Your task to perform on an android device: Search for "asus rog" on target, select the first entry, and add it to the cart. Image 0: 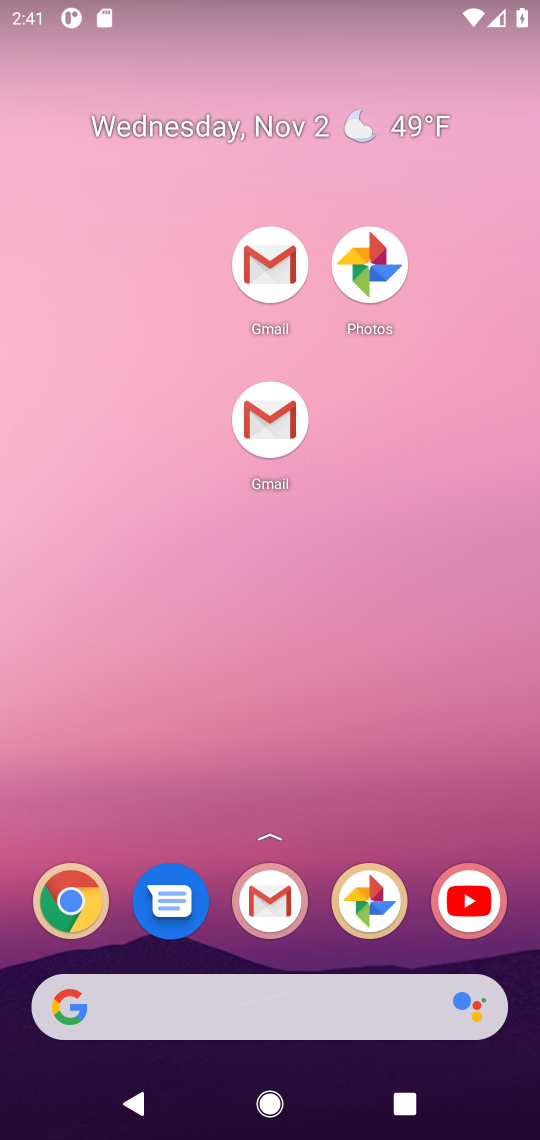
Step 0: drag from (237, 814) to (281, 3)
Your task to perform on an android device: Search for "asus rog" on target, select the first entry, and add it to the cart. Image 1: 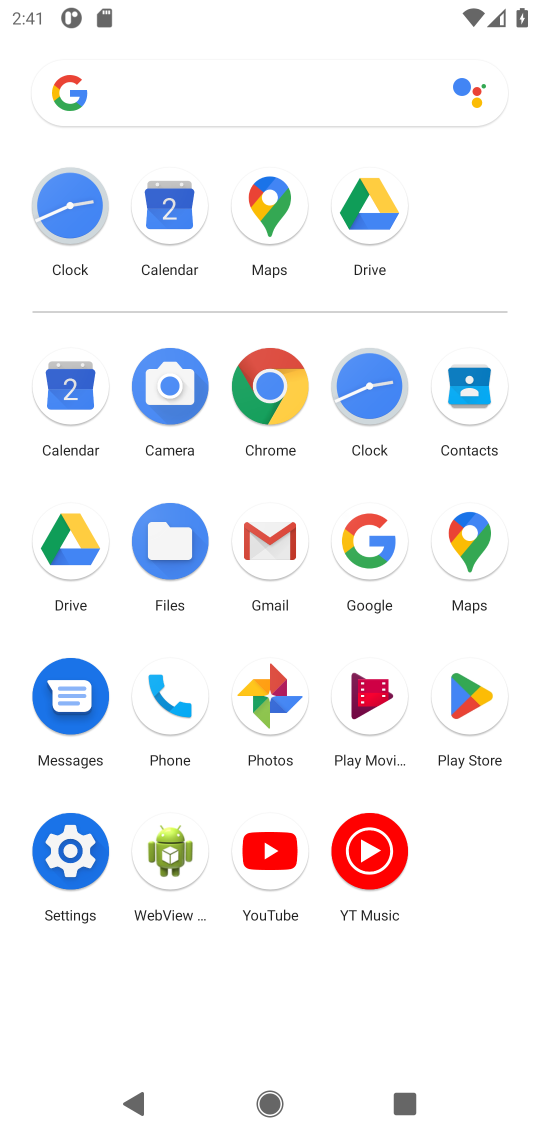
Step 1: click (276, 395)
Your task to perform on an android device: Search for "asus rog" on target, select the first entry, and add it to the cart. Image 2: 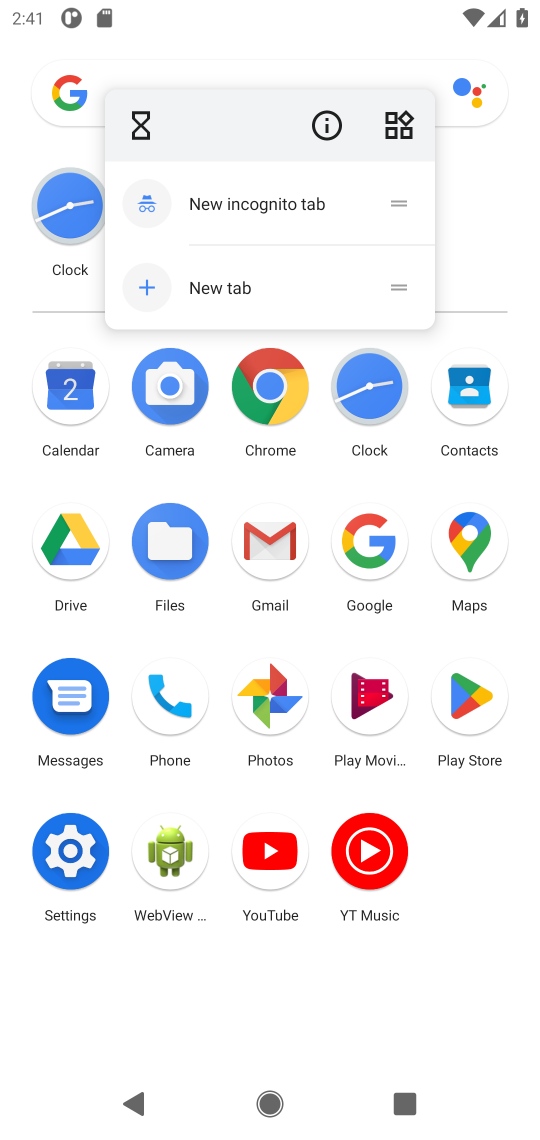
Step 2: click (272, 393)
Your task to perform on an android device: Search for "asus rog" on target, select the first entry, and add it to the cart. Image 3: 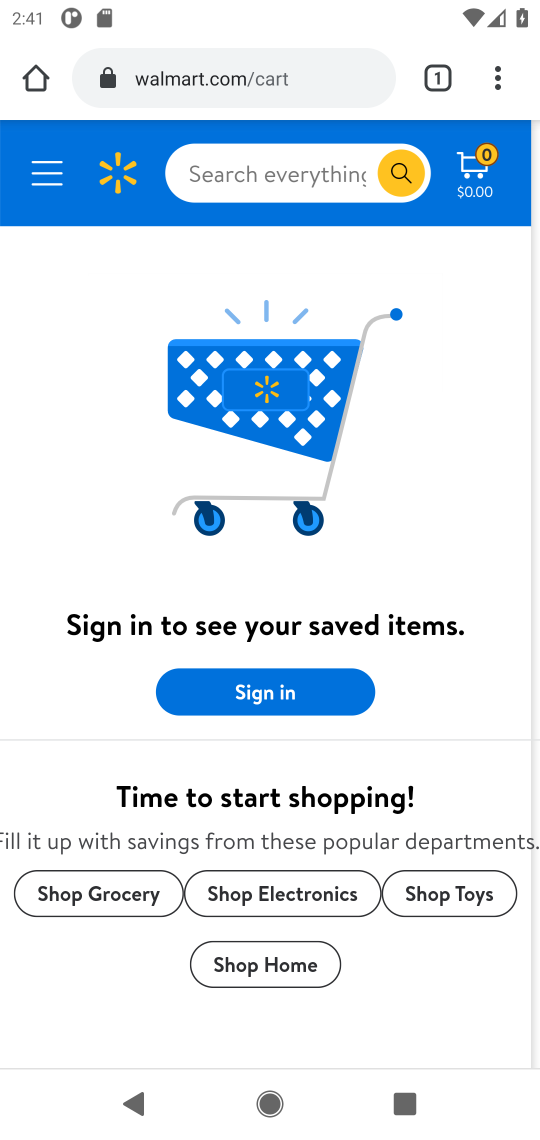
Step 3: click (246, 78)
Your task to perform on an android device: Search for "asus rog" on target, select the first entry, and add it to the cart. Image 4: 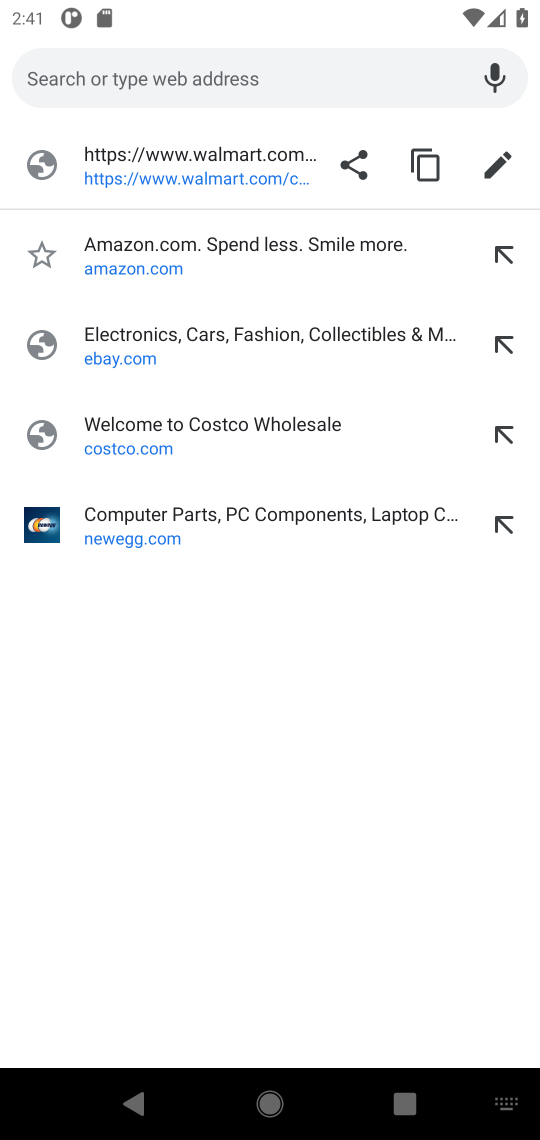
Step 4: type "target.com"
Your task to perform on an android device: Search for "asus rog" on target, select the first entry, and add it to the cart. Image 5: 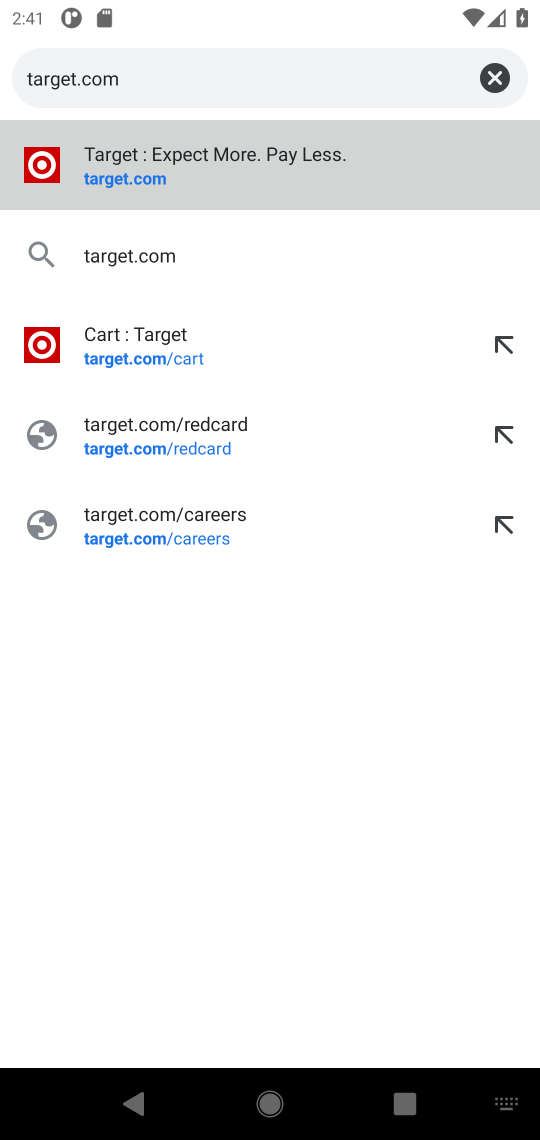
Step 5: press enter
Your task to perform on an android device: Search for "asus rog" on target, select the first entry, and add it to the cart. Image 6: 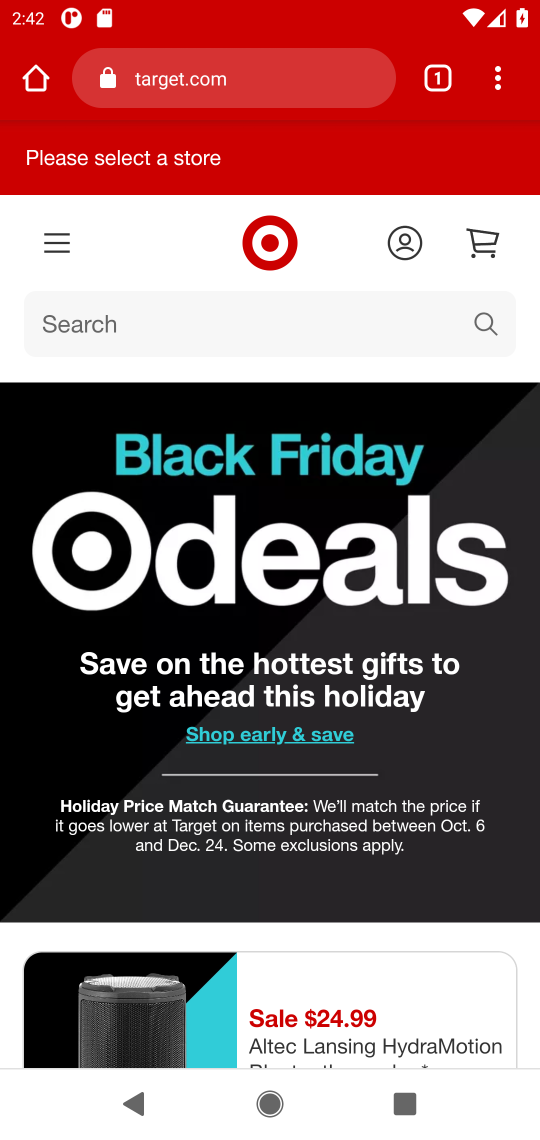
Step 6: click (271, 81)
Your task to perform on an android device: Search for "asus rog" on target, select the first entry, and add it to the cart. Image 7: 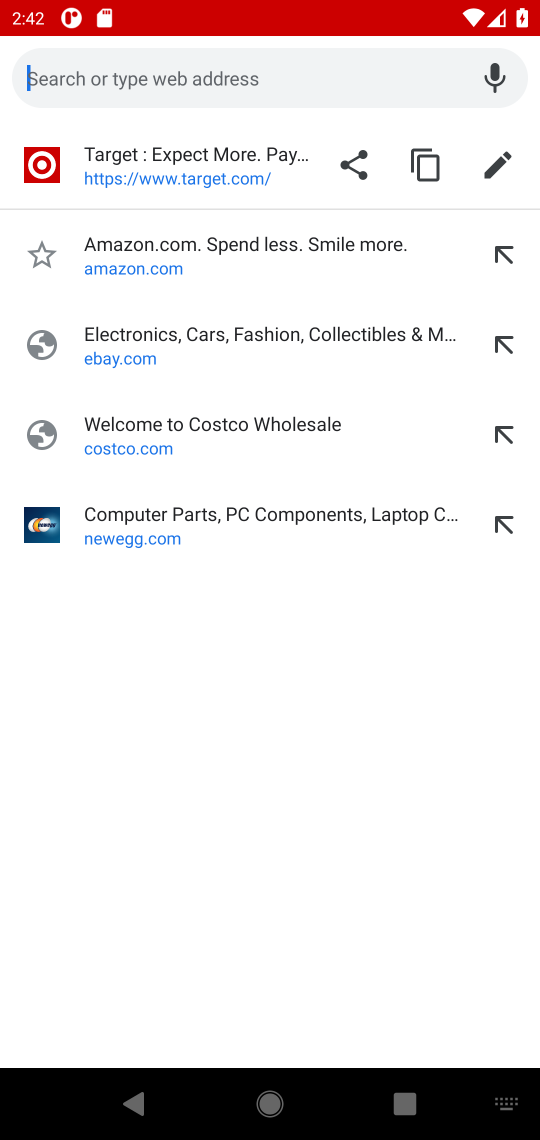
Step 7: click (249, 783)
Your task to perform on an android device: Search for "asus rog" on target, select the first entry, and add it to the cart. Image 8: 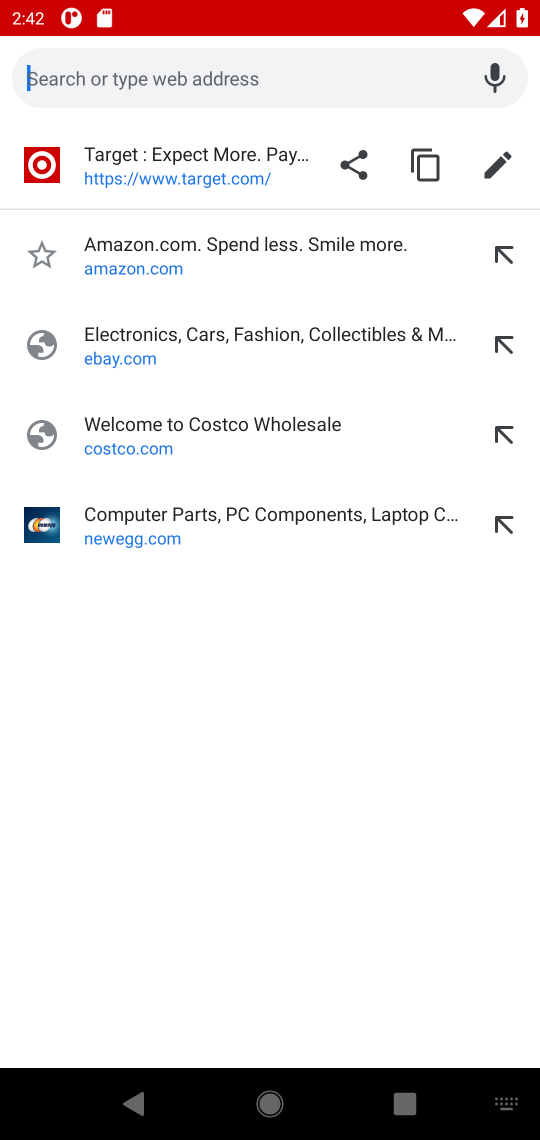
Step 8: press back button
Your task to perform on an android device: Search for "asus rog" on target, select the first entry, and add it to the cart. Image 9: 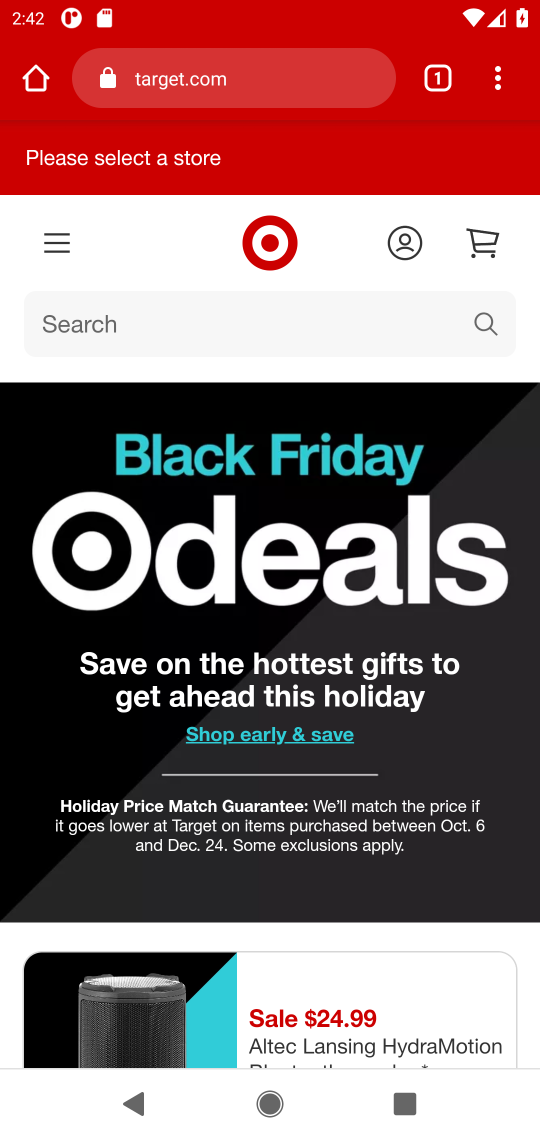
Step 9: click (263, 337)
Your task to perform on an android device: Search for "asus rog" on target, select the first entry, and add it to the cart. Image 10: 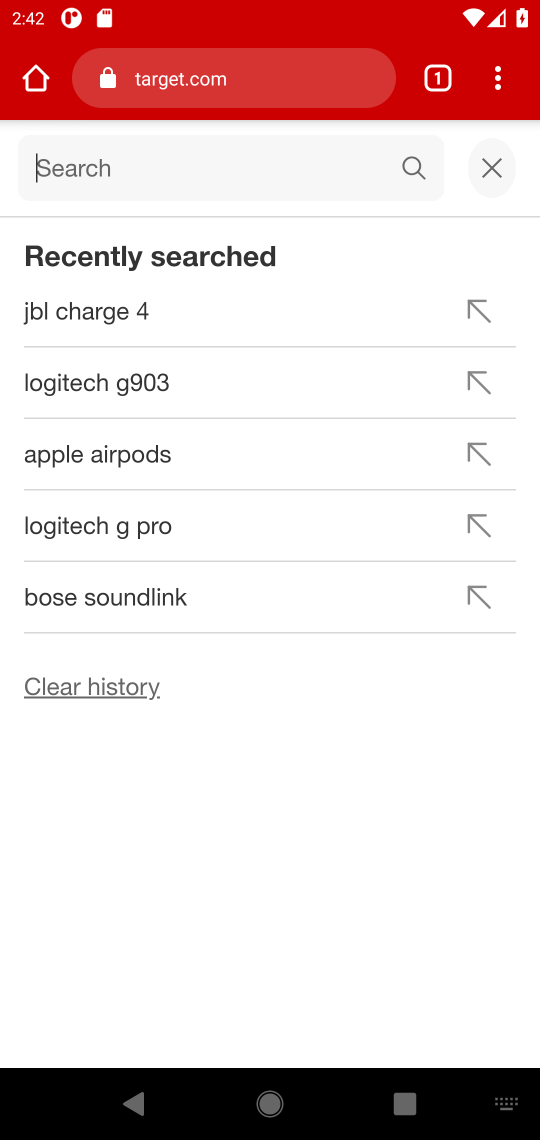
Step 10: type "asus rog"
Your task to perform on an android device: Search for "asus rog" on target, select the first entry, and add it to the cart. Image 11: 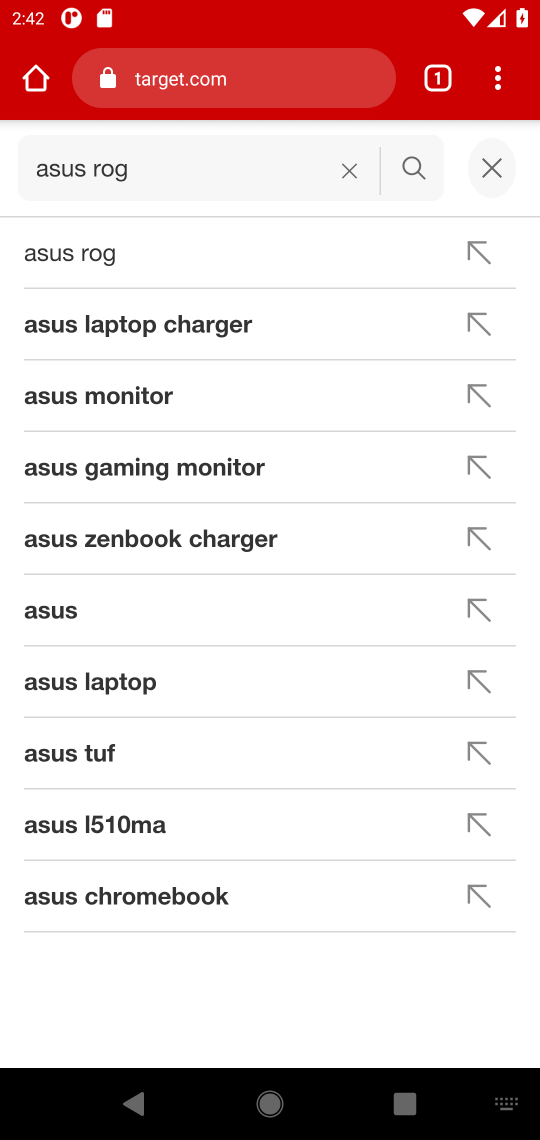
Step 11: press enter
Your task to perform on an android device: Search for "asus rog" on target, select the first entry, and add it to the cart. Image 12: 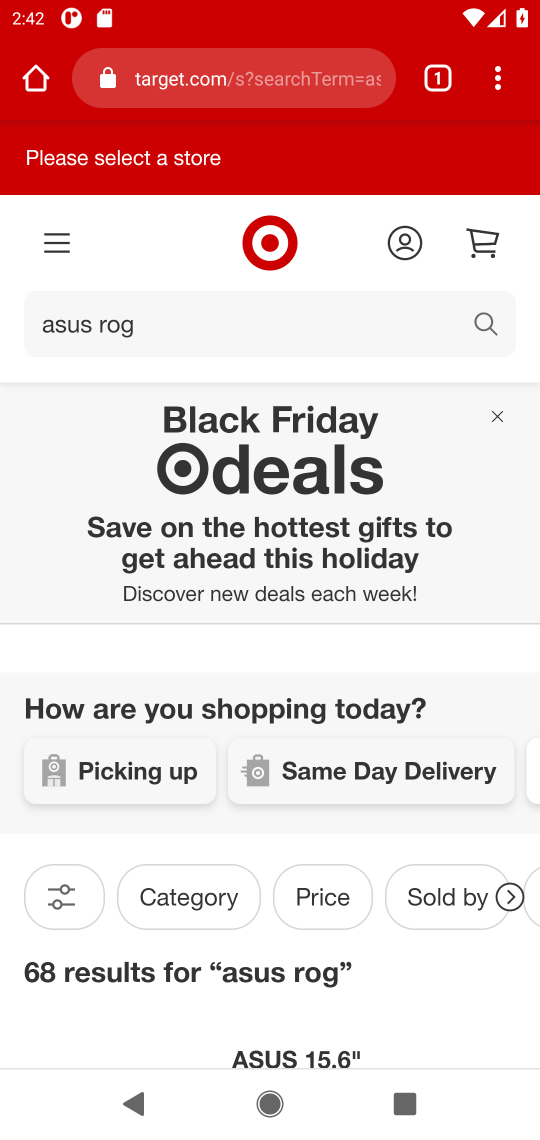
Step 12: drag from (281, 909) to (306, 328)
Your task to perform on an android device: Search for "asus rog" on target, select the first entry, and add it to the cart. Image 13: 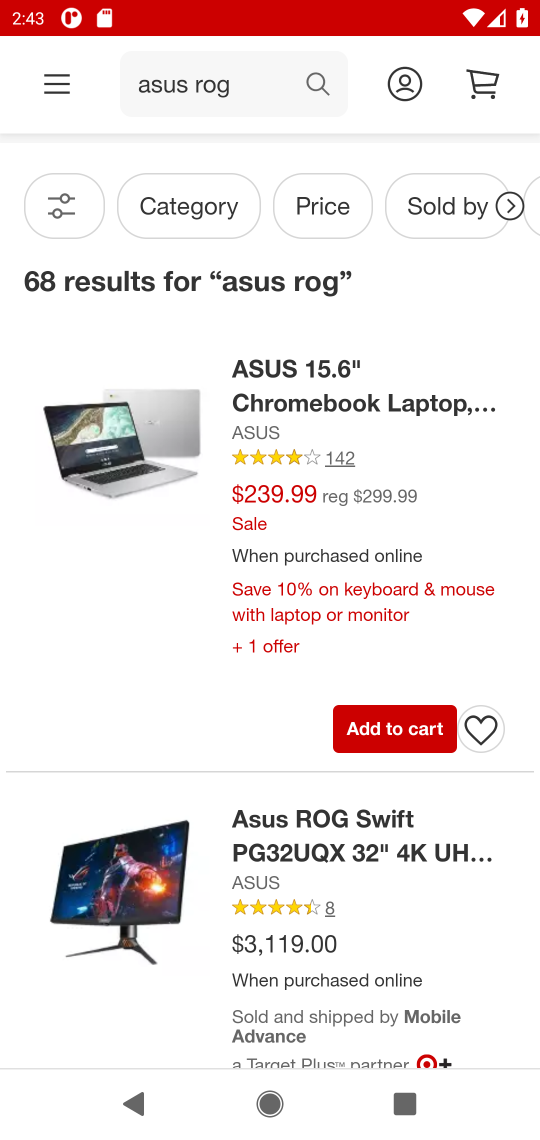
Step 13: click (292, 851)
Your task to perform on an android device: Search for "asus rog" on target, select the first entry, and add it to the cart. Image 14: 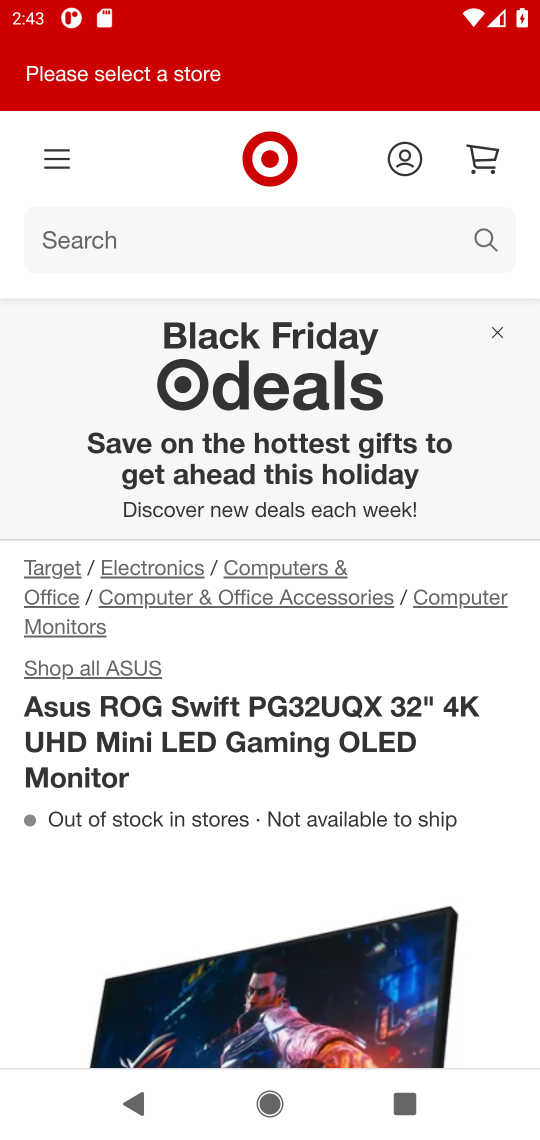
Step 14: drag from (290, 843) to (298, 214)
Your task to perform on an android device: Search for "asus rog" on target, select the first entry, and add it to the cart. Image 15: 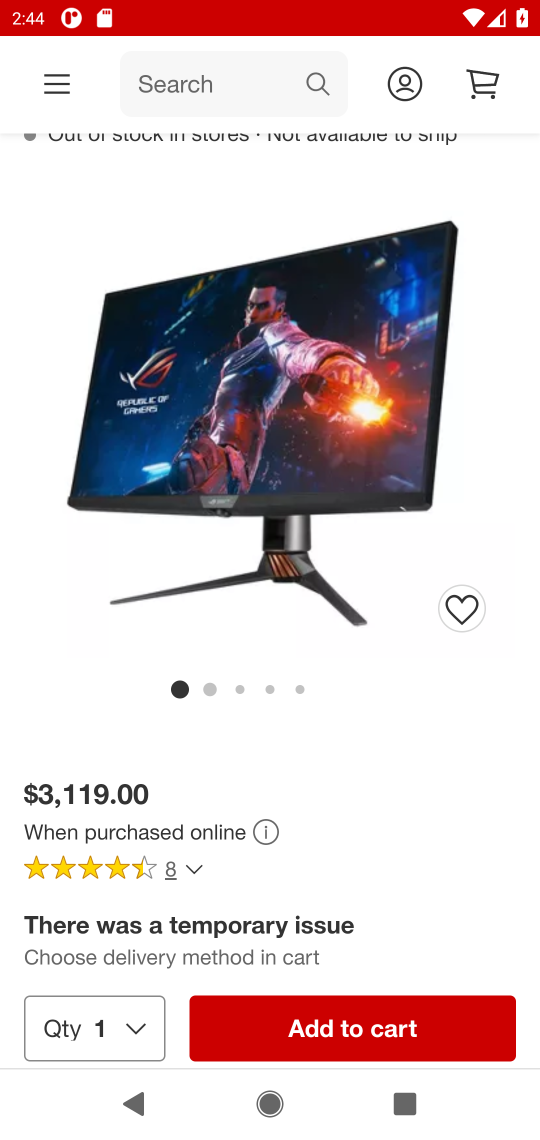
Step 15: click (365, 1010)
Your task to perform on an android device: Search for "asus rog" on target, select the first entry, and add it to the cart. Image 16: 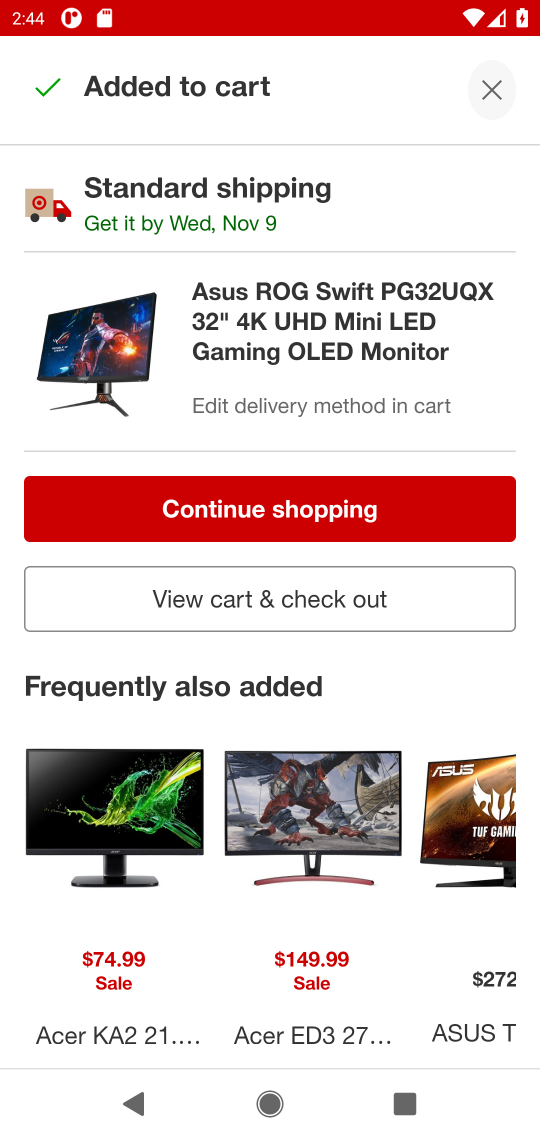
Step 16: task complete